Your task to perform on an android device: change timer sound Image 0: 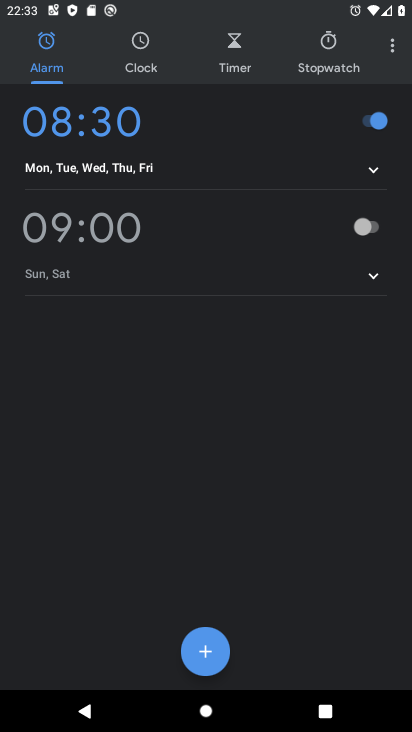
Step 0: click (387, 53)
Your task to perform on an android device: change timer sound Image 1: 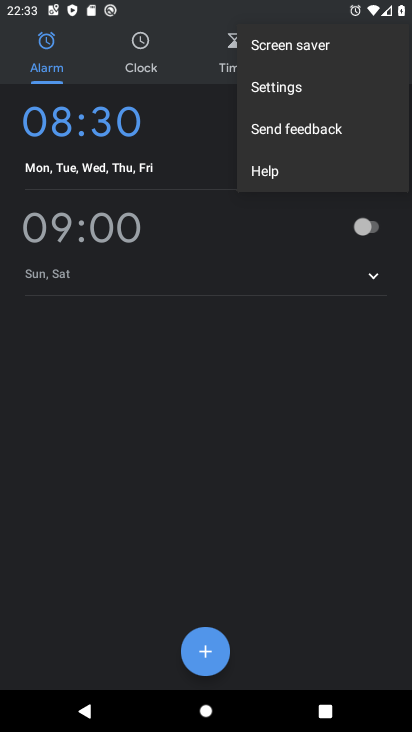
Step 1: click (310, 92)
Your task to perform on an android device: change timer sound Image 2: 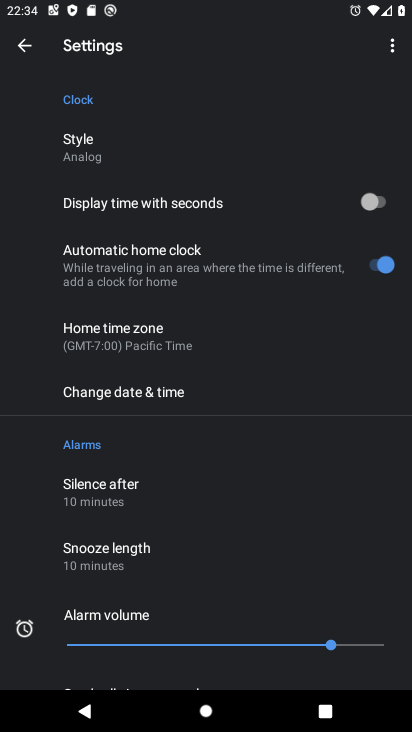
Step 2: drag from (169, 515) to (186, 266)
Your task to perform on an android device: change timer sound Image 3: 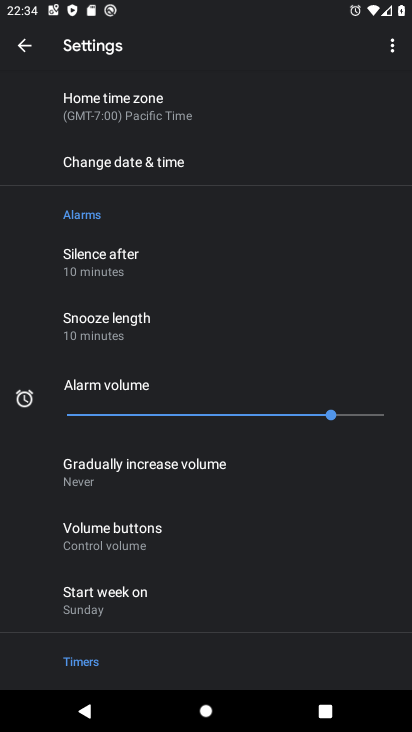
Step 3: drag from (169, 542) to (212, 254)
Your task to perform on an android device: change timer sound Image 4: 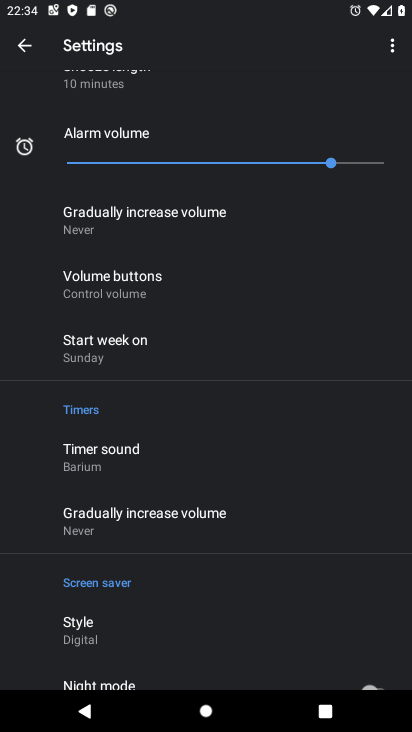
Step 4: click (133, 458)
Your task to perform on an android device: change timer sound Image 5: 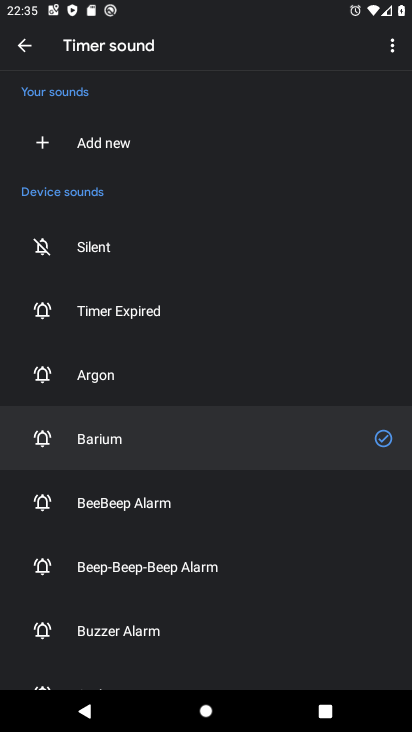
Step 5: click (87, 499)
Your task to perform on an android device: change timer sound Image 6: 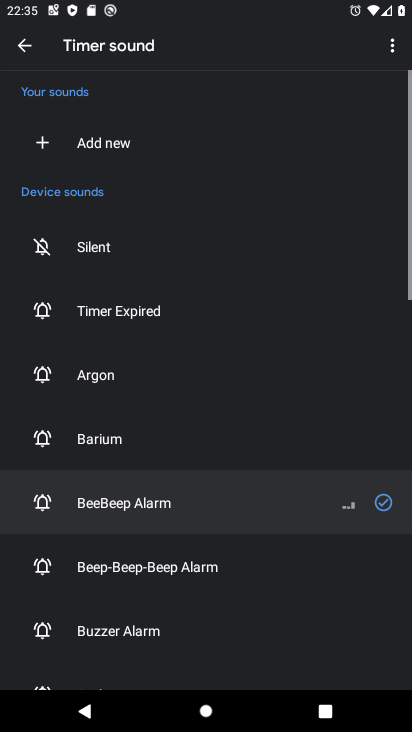
Step 6: task complete